Your task to perform on an android device: Open Yahoo.com Image 0: 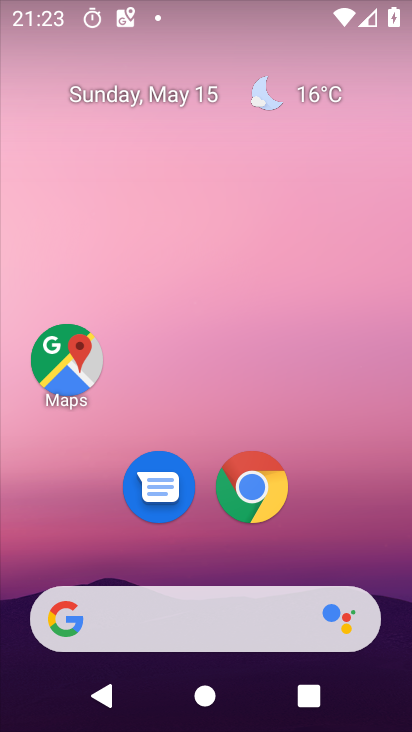
Step 0: click (234, 482)
Your task to perform on an android device: Open Yahoo.com Image 1: 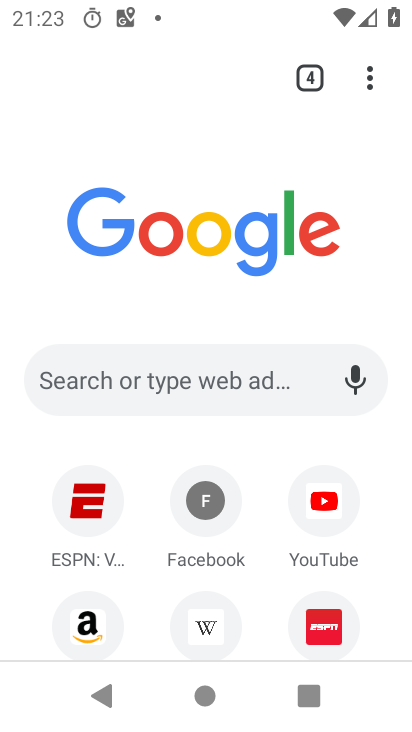
Step 1: click (221, 374)
Your task to perform on an android device: Open Yahoo.com Image 2: 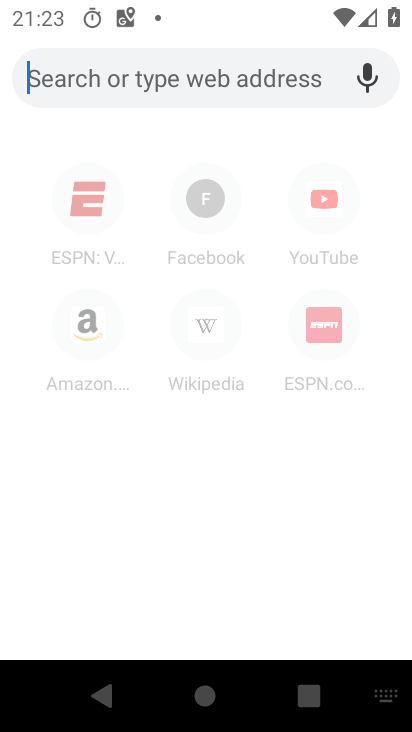
Step 2: type "Yahoo.com"
Your task to perform on an android device: Open Yahoo.com Image 3: 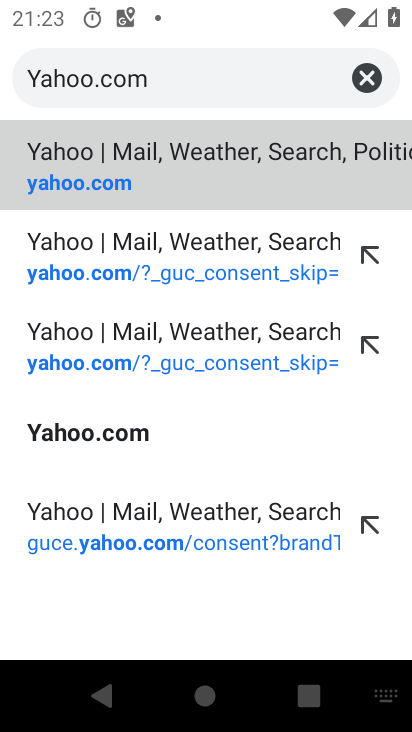
Step 3: click (126, 425)
Your task to perform on an android device: Open Yahoo.com Image 4: 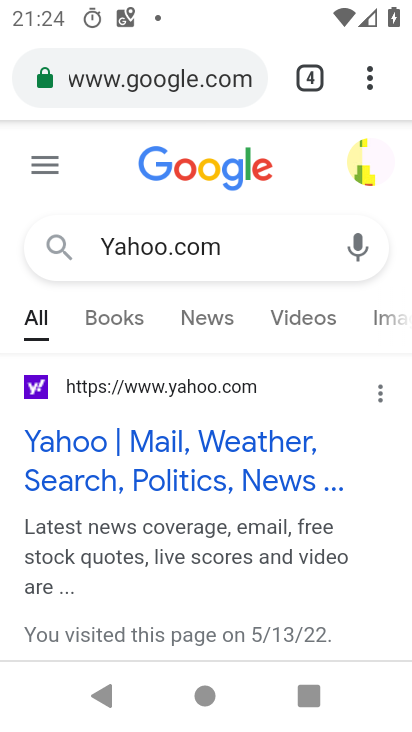
Step 4: task complete